Your task to perform on an android device: delete the emails in spam in the gmail app Image 0: 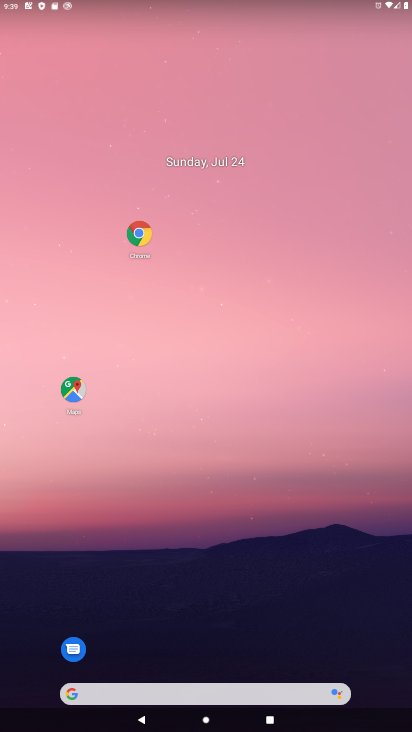
Step 0: drag from (179, 643) to (222, 3)
Your task to perform on an android device: delete the emails in spam in the gmail app Image 1: 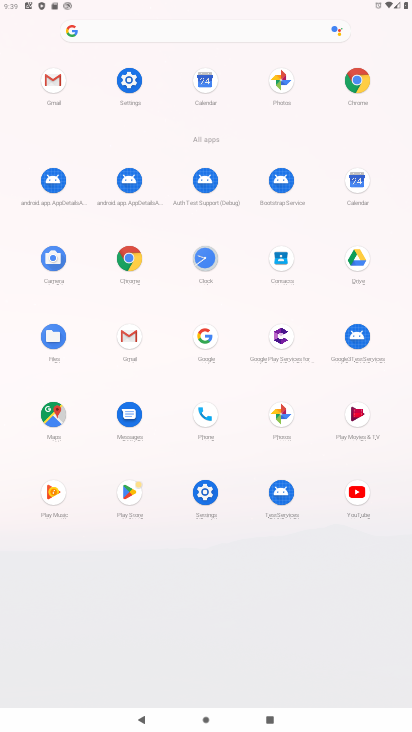
Step 1: click (51, 90)
Your task to perform on an android device: delete the emails in spam in the gmail app Image 2: 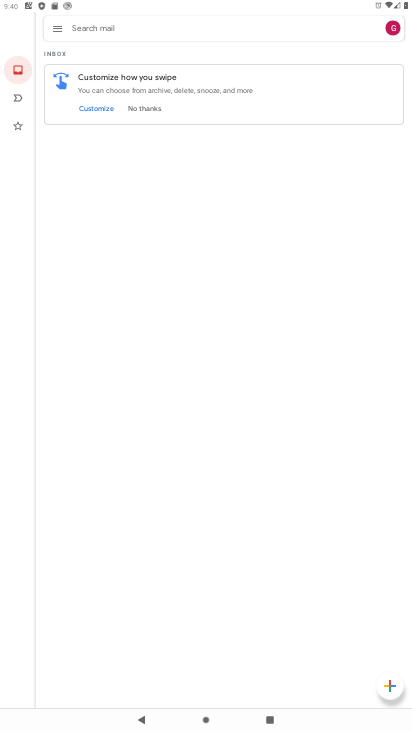
Step 2: click (63, 24)
Your task to perform on an android device: delete the emails in spam in the gmail app Image 3: 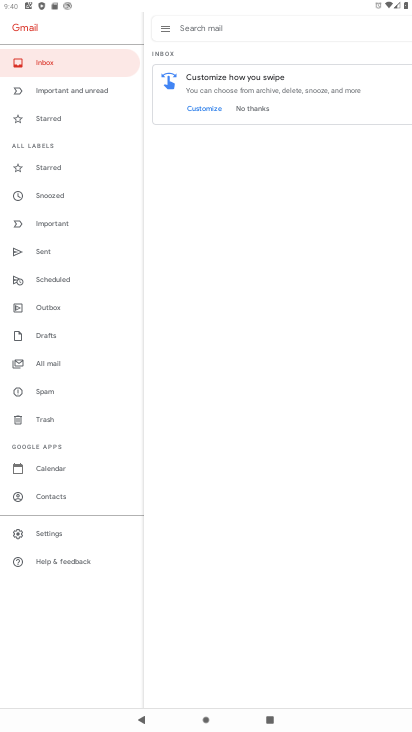
Step 3: click (48, 369)
Your task to perform on an android device: delete the emails in spam in the gmail app Image 4: 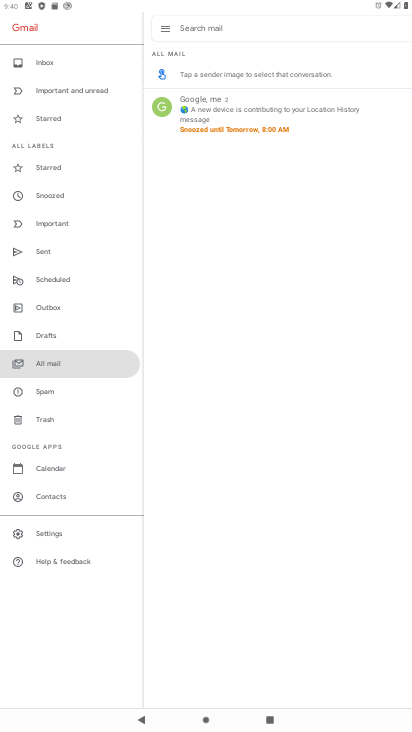
Step 4: click (249, 114)
Your task to perform on an android device: delete the emails in spam in the gmail app Image 5: 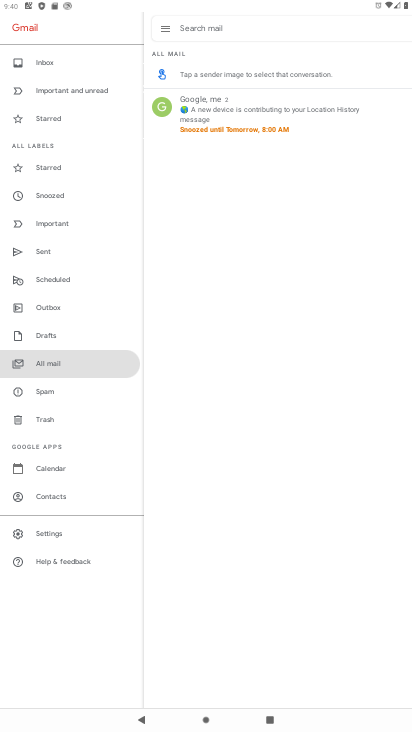
Step 5: click (259, 108)
Your task to perform on an android device: delete the emails in spam in the gmail app Image 6: 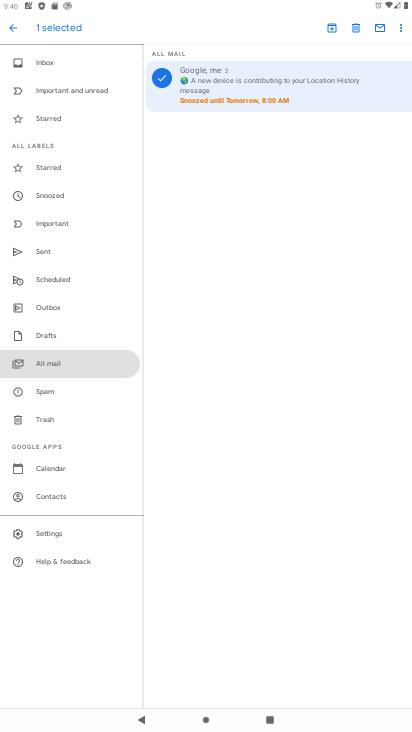
Step 6: click (352, 29)
Your task to perform on an android device: delete the emails in spam in the gmail app Image 7: 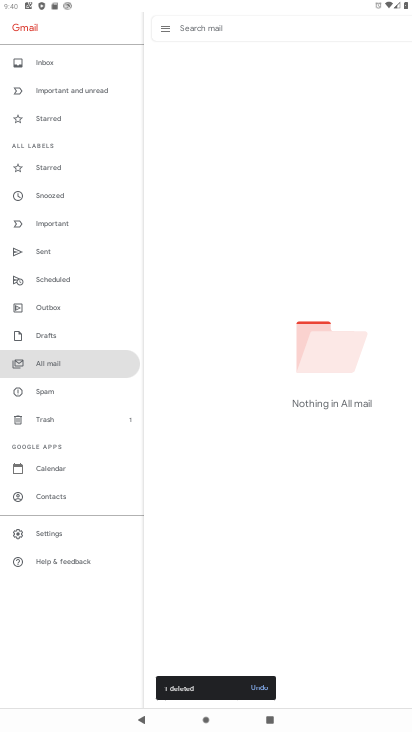
Step 7: task complete